Your task to perform on an android device: allow notifications from all sites in the chrome app Image 0: 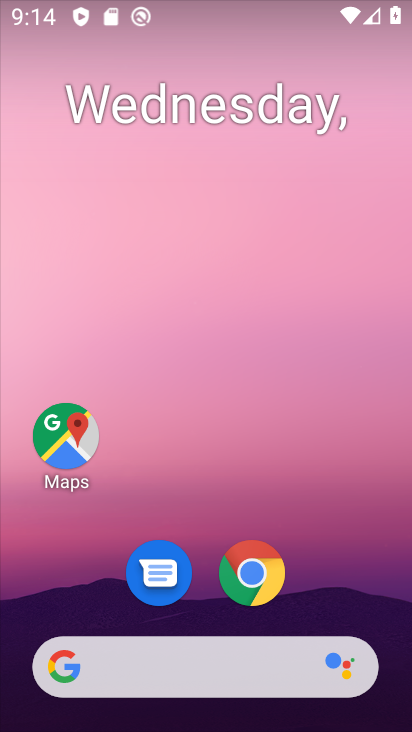
Step 0: drag from (326, 498) to (304, 312)
Your task to perform on an android device: allow notifications from all sites in the chrome app Image 1: 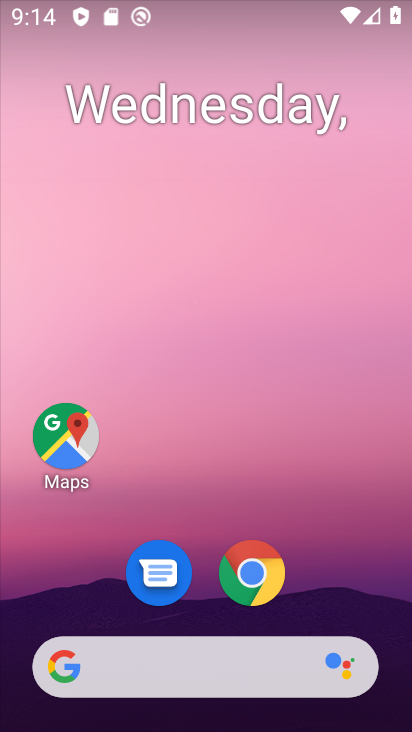
Step 1: click (239, 573)
Your task to perform on an android device: allow notifications from all sites in the chrome app Image 2: 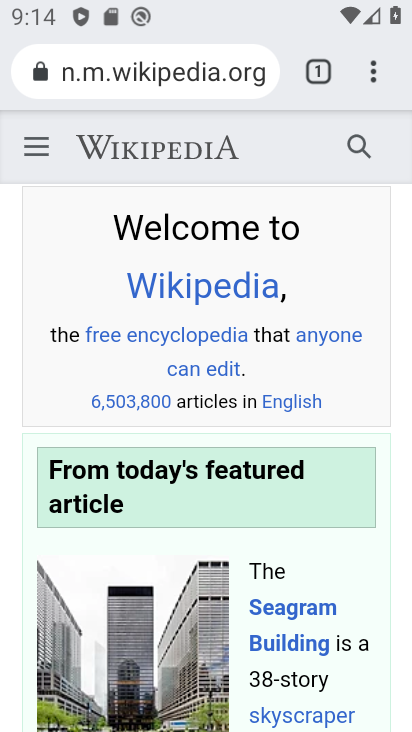
Step 2: click (377, 67)
Your task to perform on an android device: allow notifications from all sites in the chrome app Image 3: 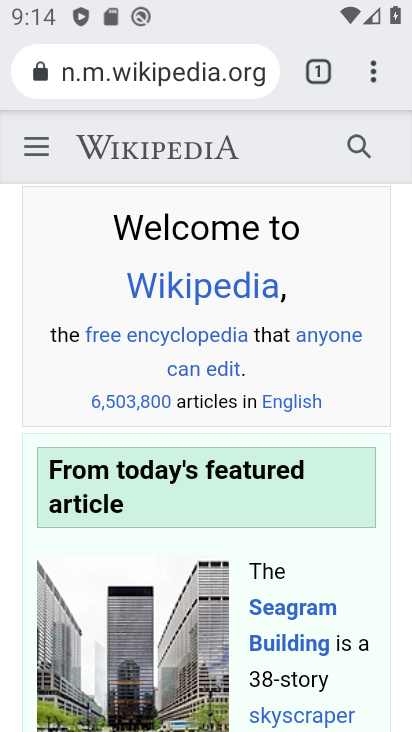
Step 3: click (372, 63)
Your task to perform on an android device: allow notifications from all sites in the chrome app Image 4: 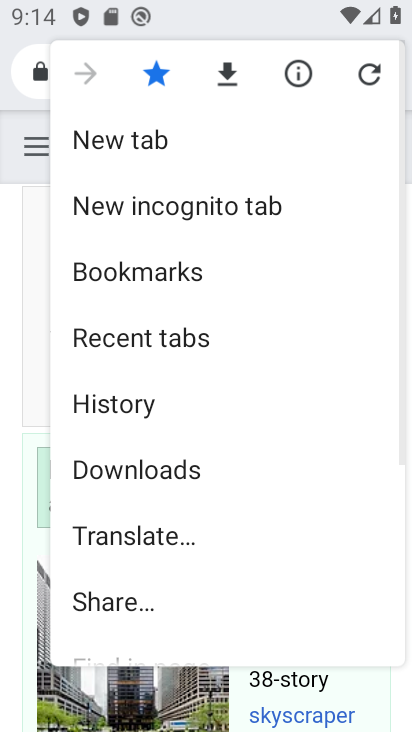
Step 4: drag from (69, 515) to (146, 236)
Your task to perform on an android device: allow notifications from all sites in the chrome app Image 5: 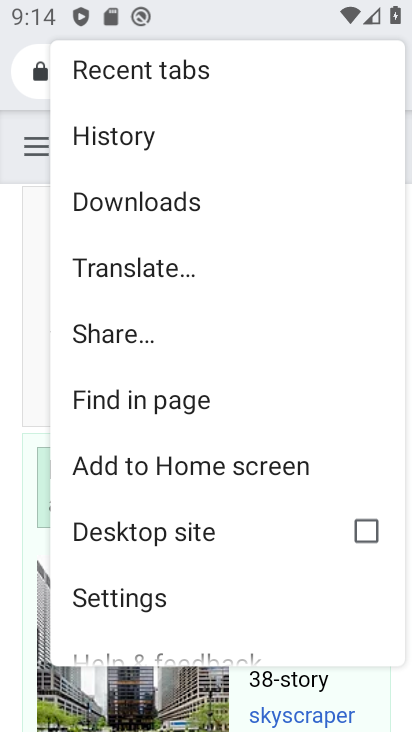
Step 5: click (136, 599)
Your task to perform on an android device: allow notifications from all sites in the chrome app Image 6: 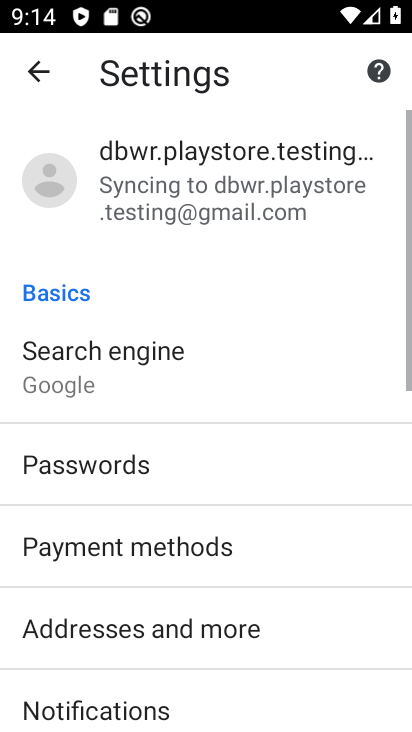
Step 6: drag from (208, 579) to (231, 271)
Your task to perform on an android device: allow notifications from all sites in the chrome app Image 7: 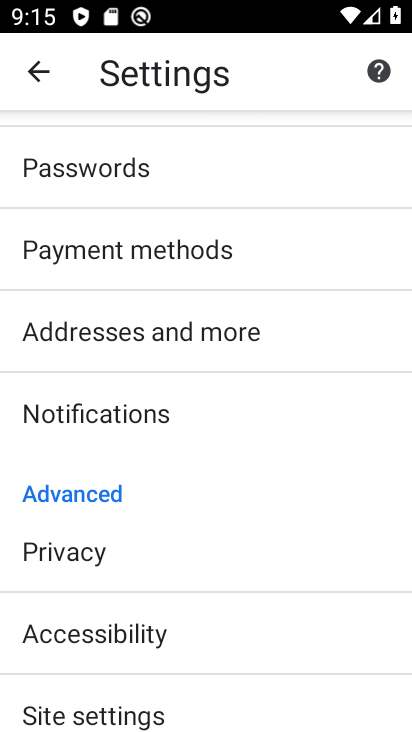
Step 7: click (139, 698)
Your task to perform on an android device: allow notifications from all sites in the chrome app Image 8: 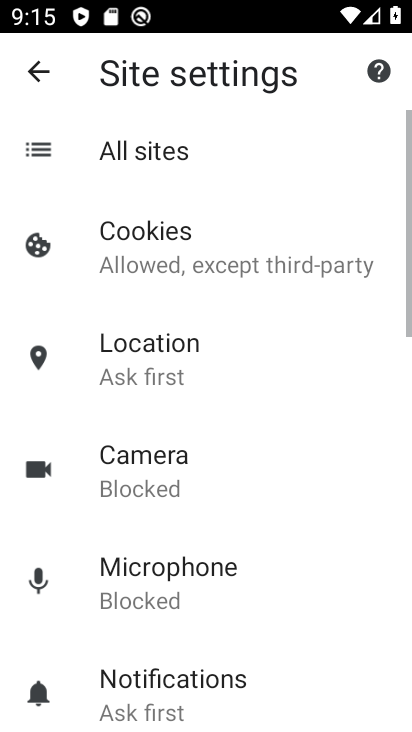
Step 8: click (171, 249)
Your task to perform on an android device: allow notifications from all sites in the chrome app Image 9: 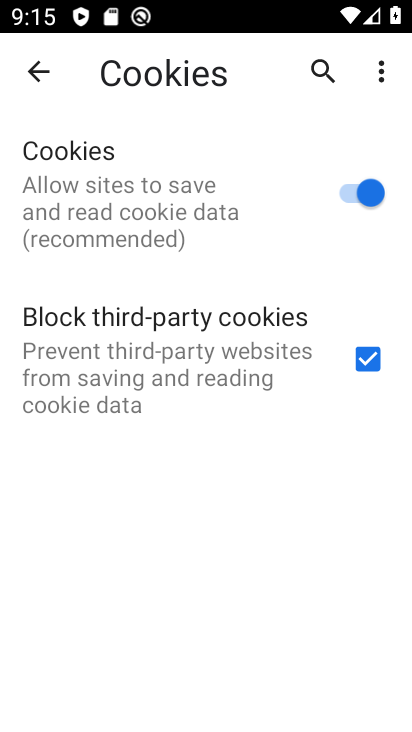
Step 9: click (37, 78)
Your task to perform on an android device: allow notifications from all sites in the chrome app Image 10: 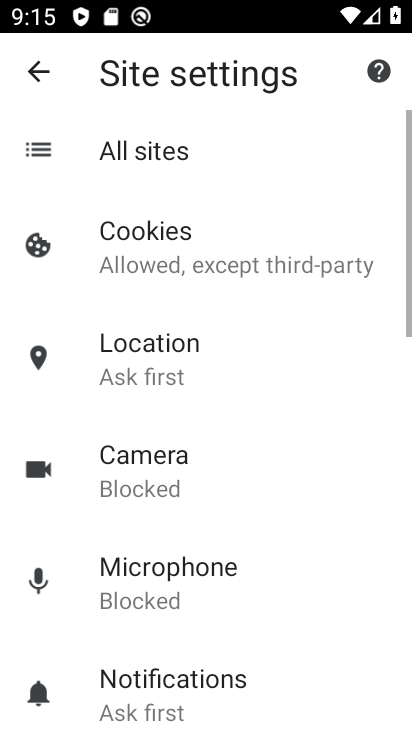
Step 10: click (166, 458)
Your task to perform on an android device: allow notifications from all sites in the chrome app Image 11: 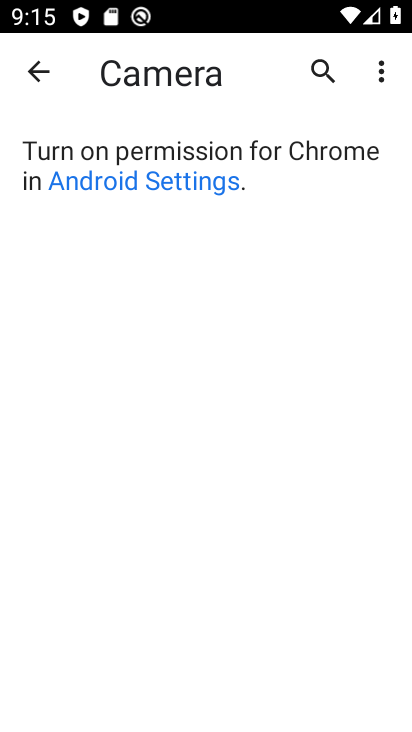
Step 11: click (39, 79)
Your task to perform on an android device: allow notifications from all sites in the chrome app Image 12: 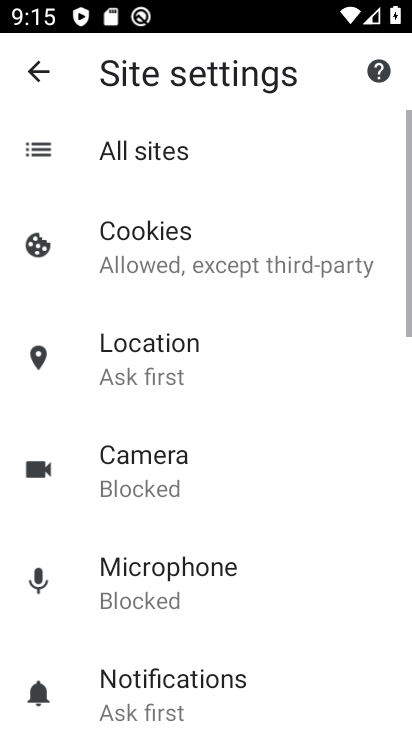
Step 12: task complete